Your task to perform on an android device: allow notifications from all sites in the chrome app Image 0: 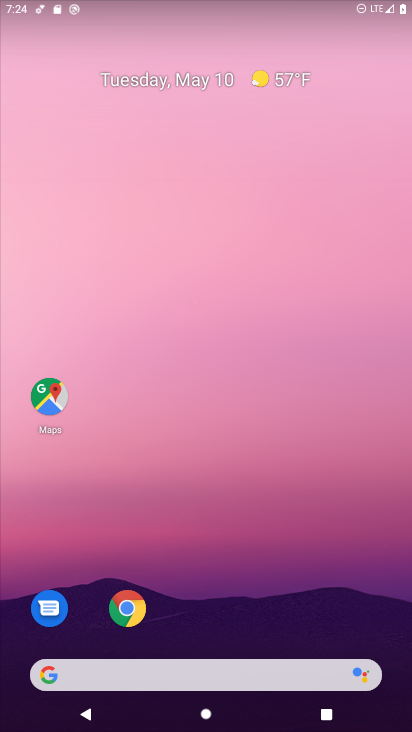
Step 0: drag from (375, 617) to (343, 24)
Your task to perform on an android device: allow notifications from all sites in the chrome app Image 1: 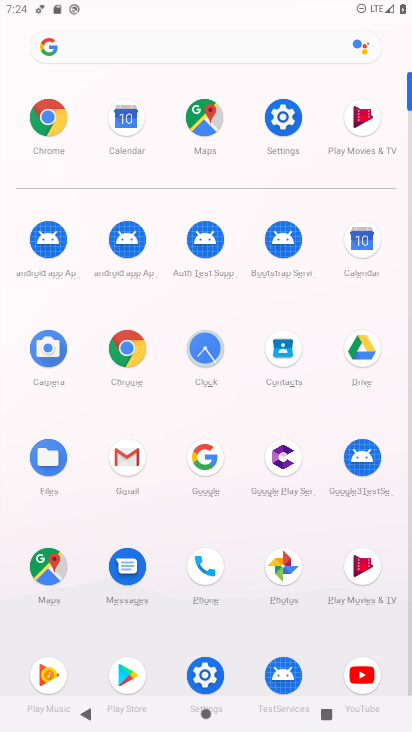
Step 1: click (120, 356)
Your task to perform on an android device: allow notifications from all sites in the chrome app Image 2: 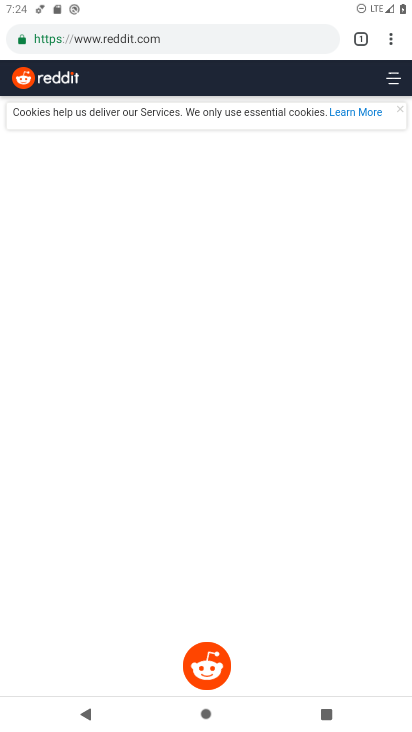
Step 2: press back button
Your task to perform on an android device: allow notifications from all sites in the chrome app Image 3: 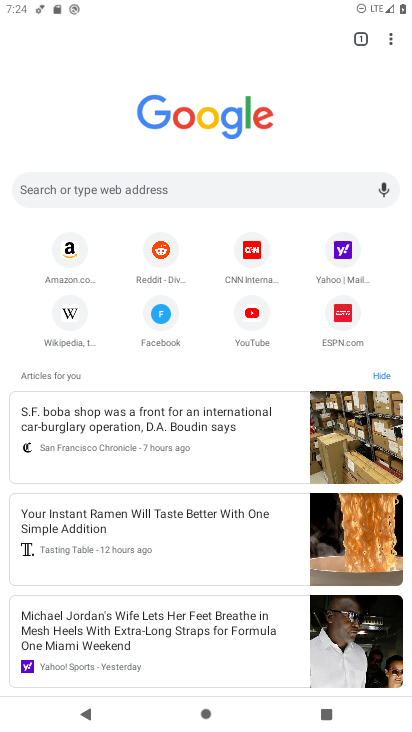
Step 3: click (387, 37)
Your task to perform on an android device: allow notifications from all sites in the chrome app Image 4: 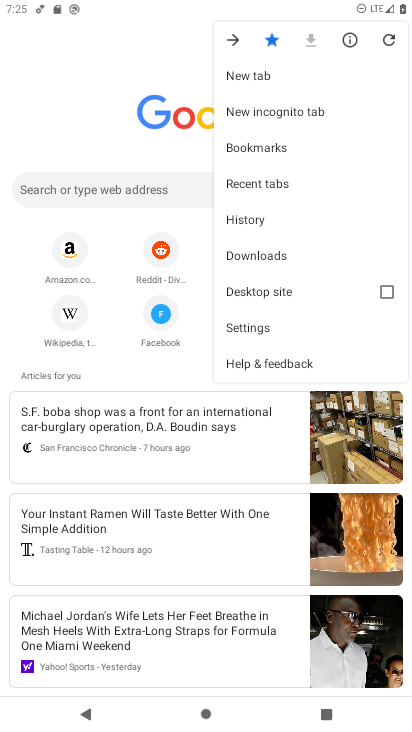
Step 4: click (280, 330)
Your task to perform on an android device: allow notifications from all sites in the chrome app Image 5: 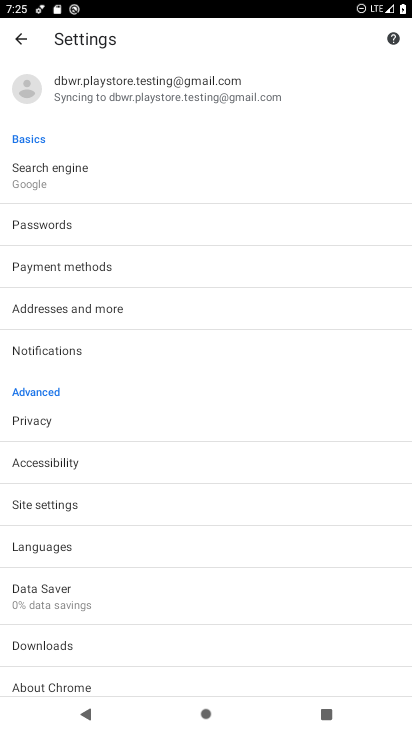
Step 5: click (127, 348)
Your task to perform on an android device: allow notifications from all sites in the chrome app Image 6: 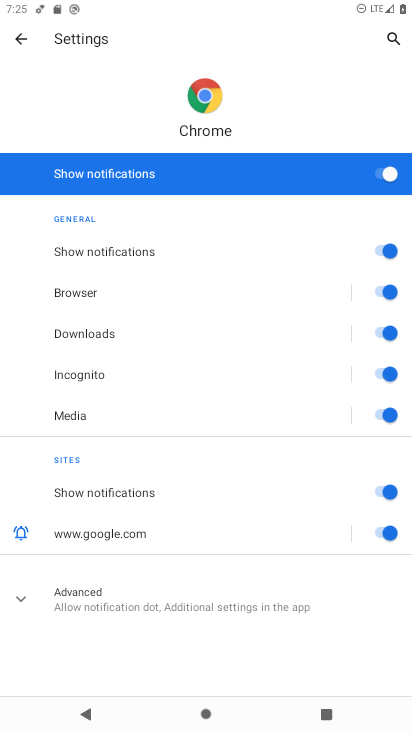
Step 6: task complete